Your task to perform on an android device: turn off smart reply in the gmail app Image 0: 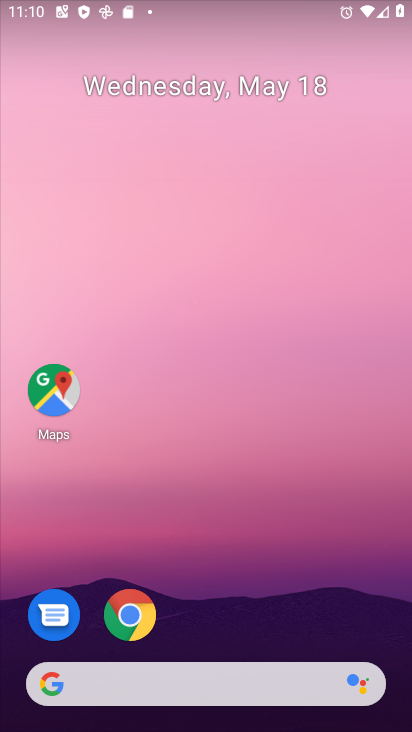
Step 0: drag from (217, 659) to (216, 234)
Your task to perform on an android device: turn off smart reply in the gmail app Image 1: 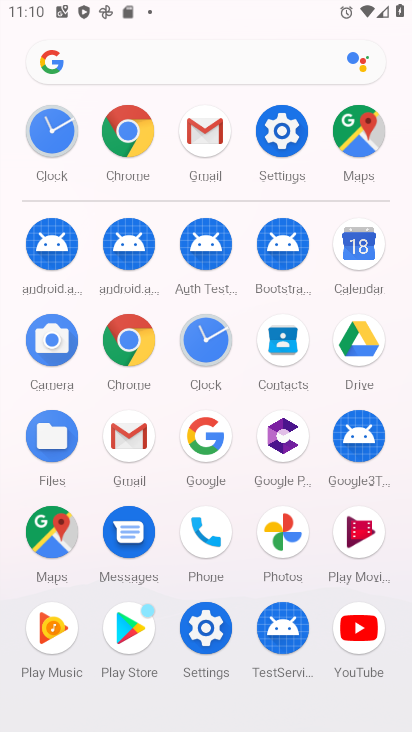
Step 1: click (196, 147)
Your task to perform on an android device: turn off smart reply in the gmail app Image 2: 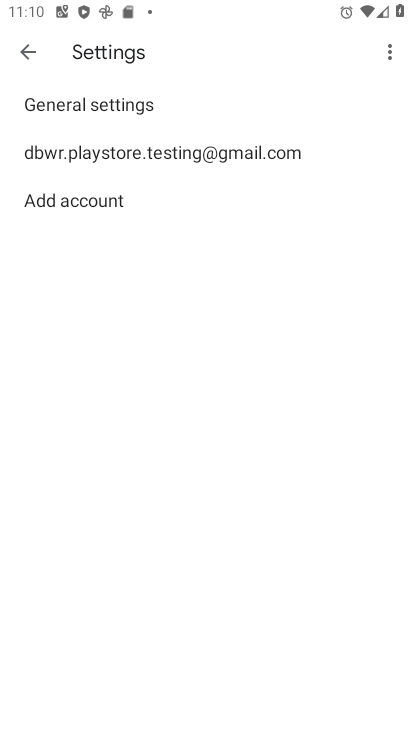
Step 2: click (161, 155)
Your task to perform on an android device: turn off smart reply in the gmail app Image 3: 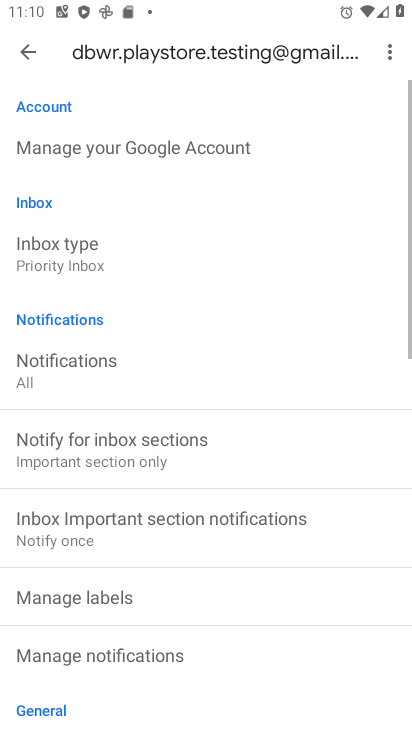
Step 3: drag from (190, 707) to (196, 369)
Your task to perform on an android device: turn off smart reply in the gmail app Image 4: 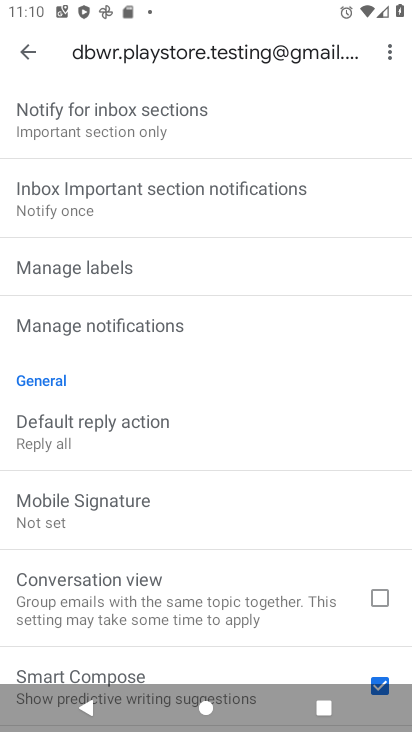
Step 4: drag from (184, 677) to (197, 395)
Your task to perform on an android device: turn off smart reply in the gmail app Image 5: 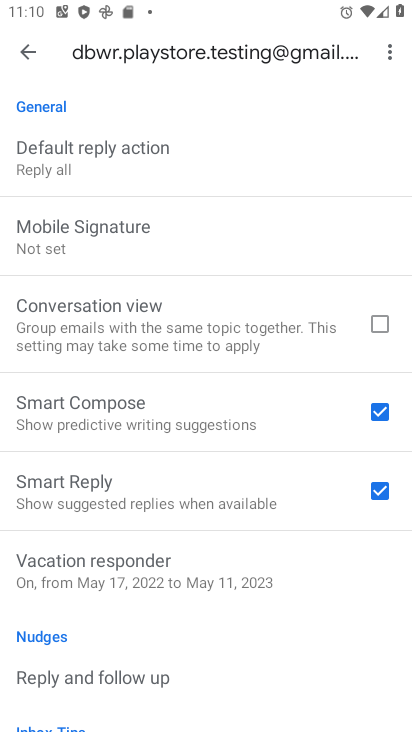
Step 5: click (377, 489)
Your task to perform on an android device: turn off smart reply in the gmail app Image 6: 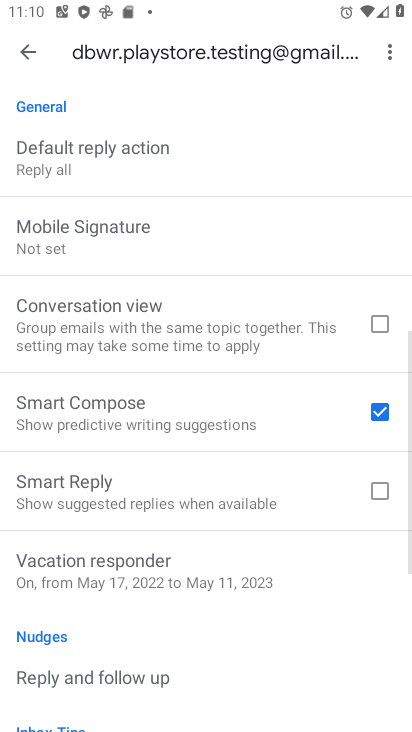
Step 6: task complete